Your task to perform on an android device: add a contact Image 0: 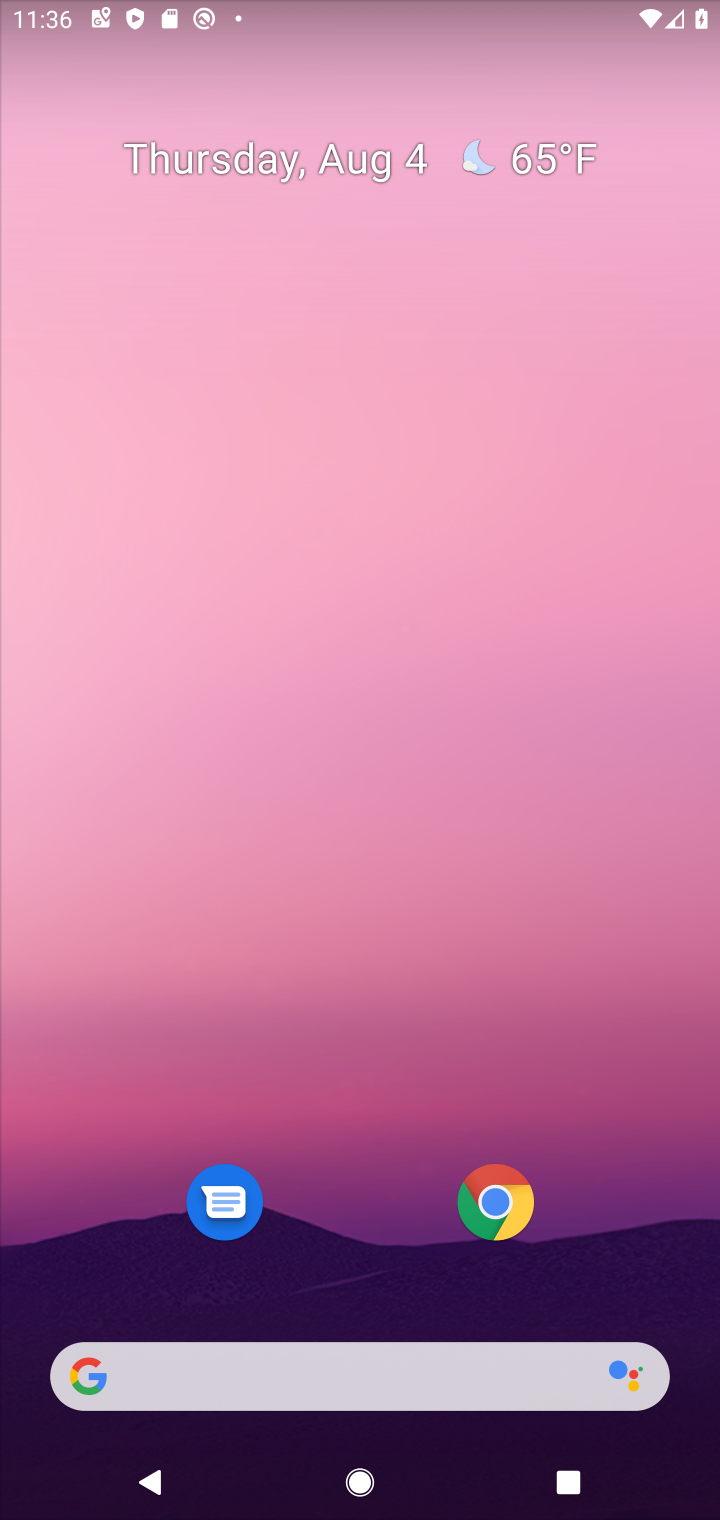
Step 0: drag from (371, 1160) to (522, 53)
Your task to perform on an android device: add a contact Image 1: 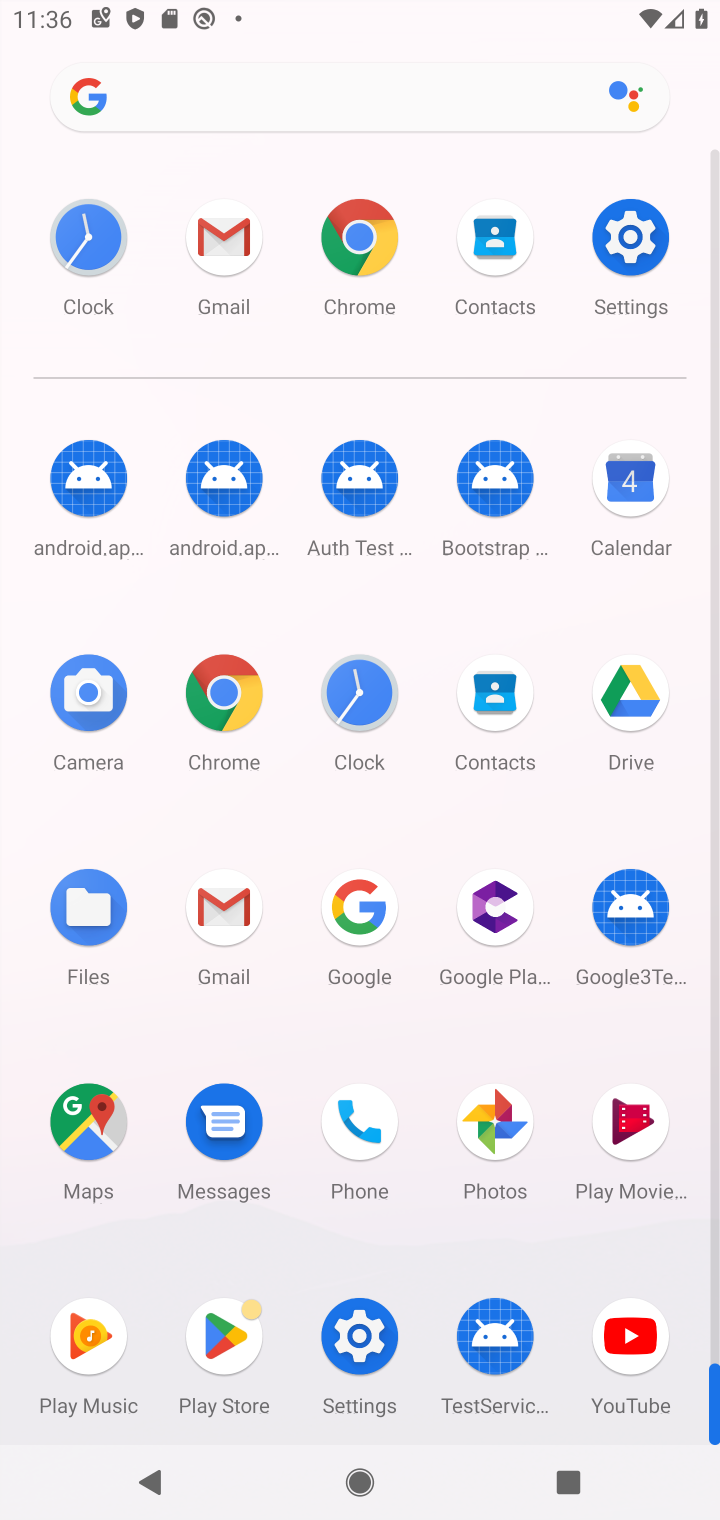
Step 1: click (482, 707)
Your task to perform on an android device: add a contact Image 2: 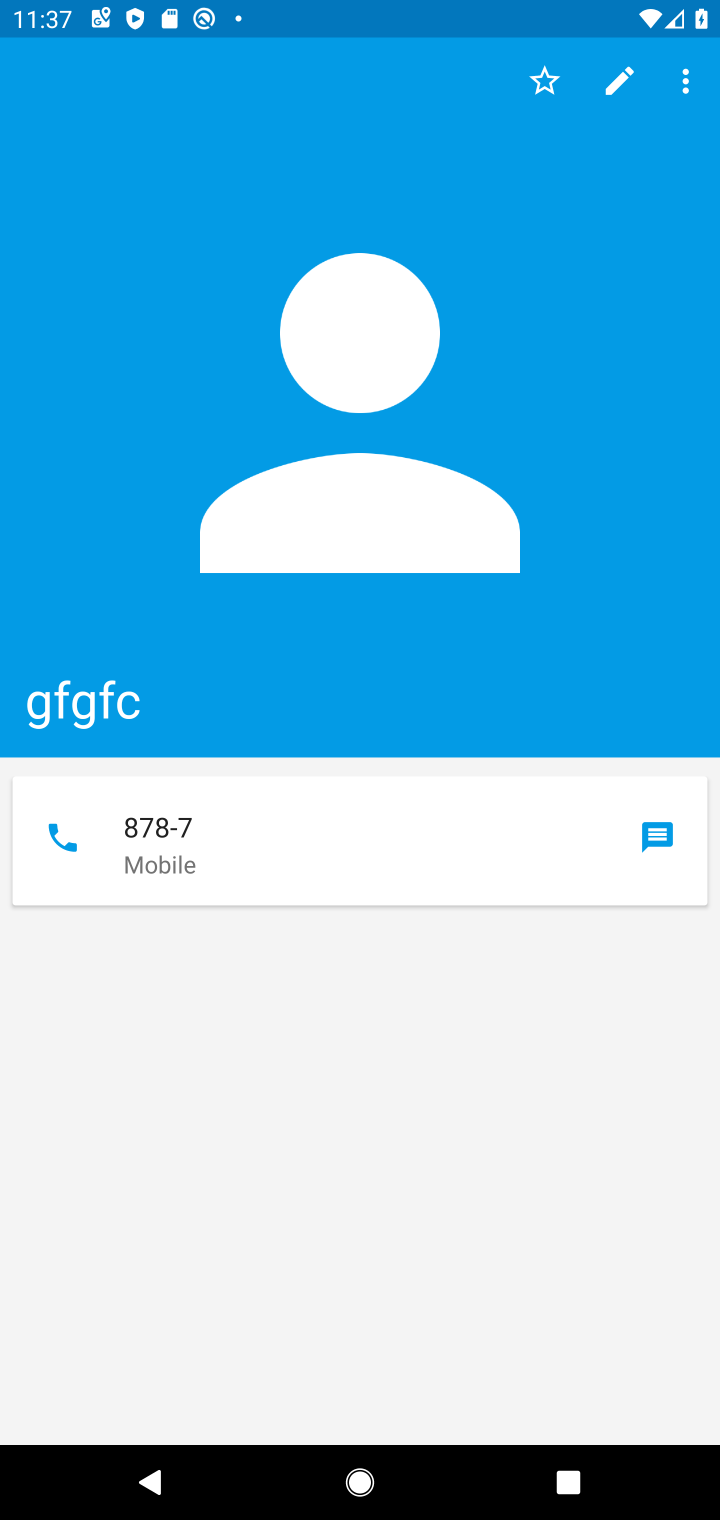
Step 2: press back button
Your task to perform on an android device: add a contact Image 3: 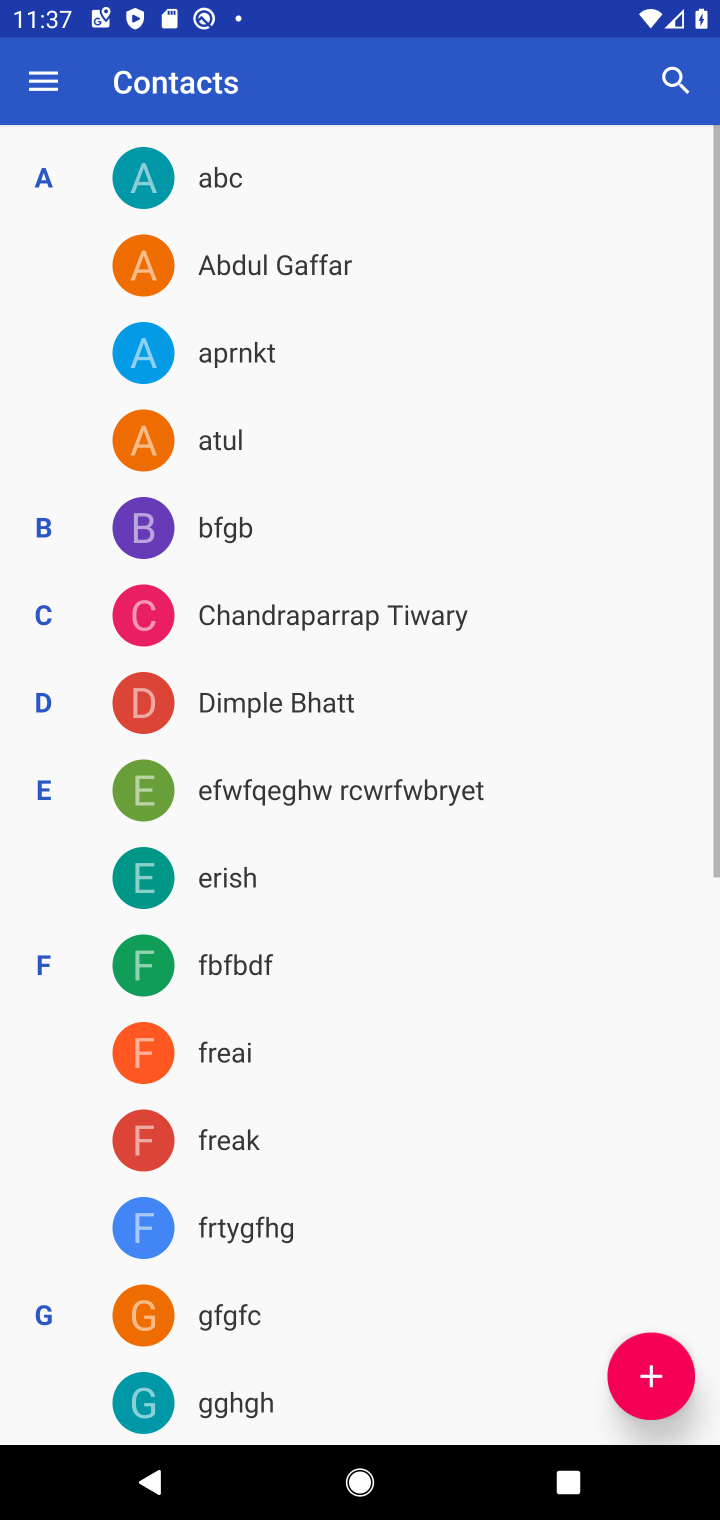
Step 3: click (649, 1355)
Your task to perform on an android device: add a contact Image 4: 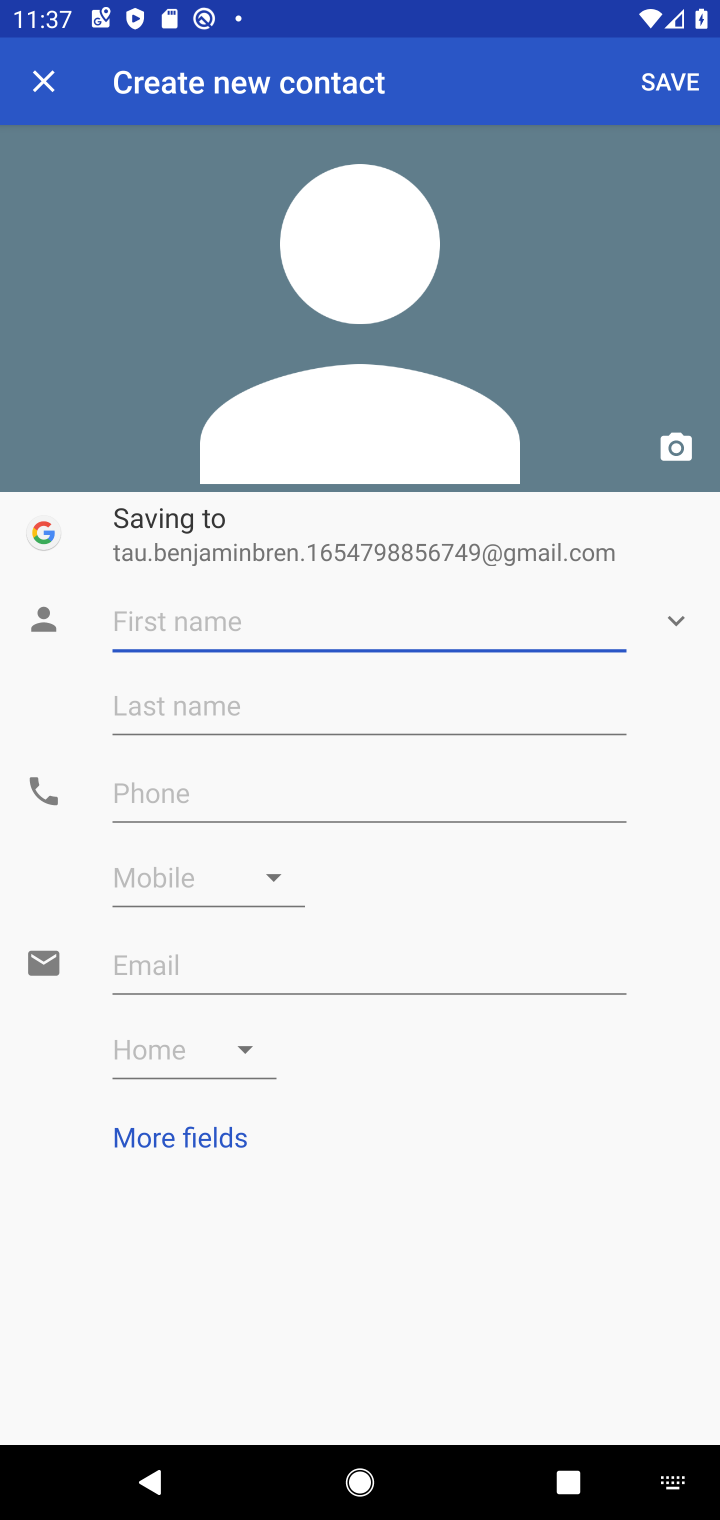
Step 4: click (218, 636)
Your task to perform on an android device: add a contact Image 5: 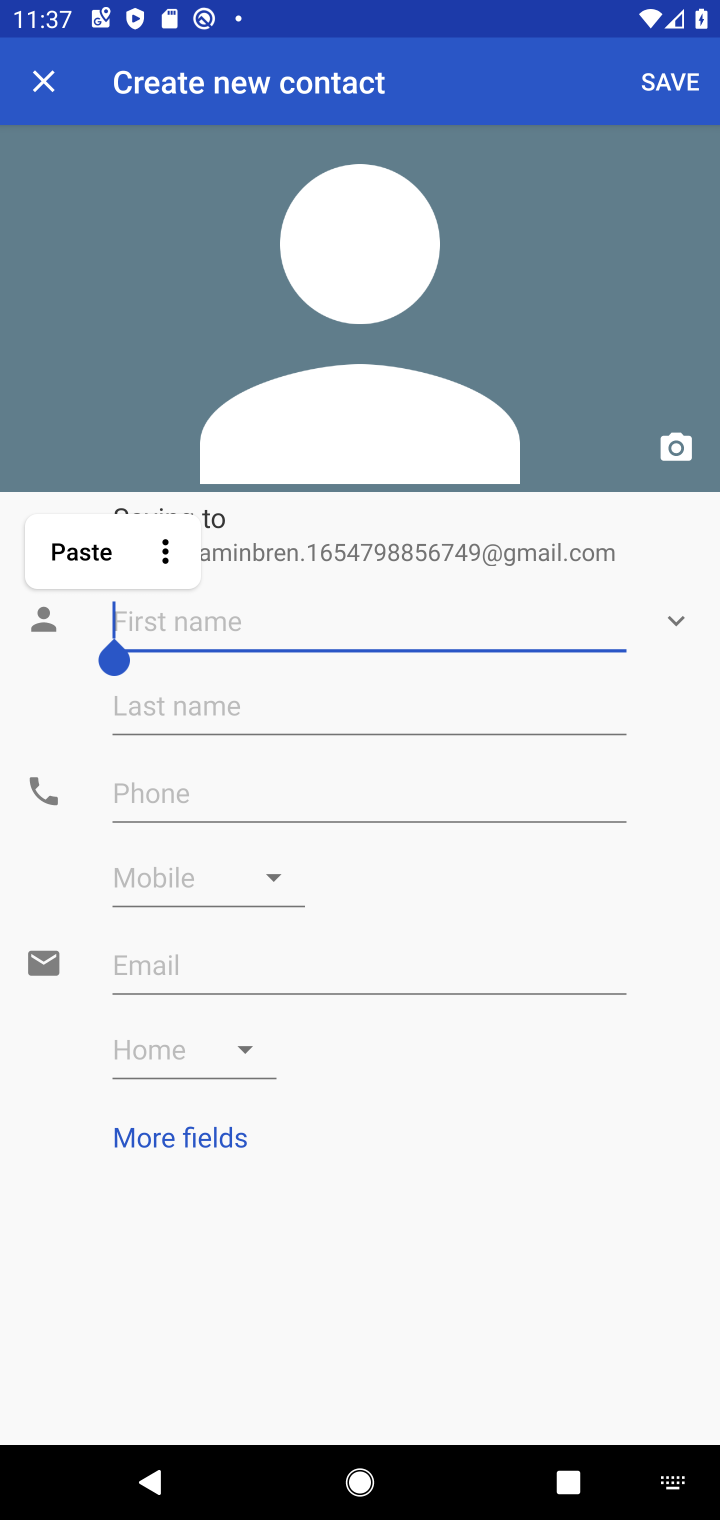
Step 5: type "gvgv"
Your task to perform on an android device: add a contact Image 6: 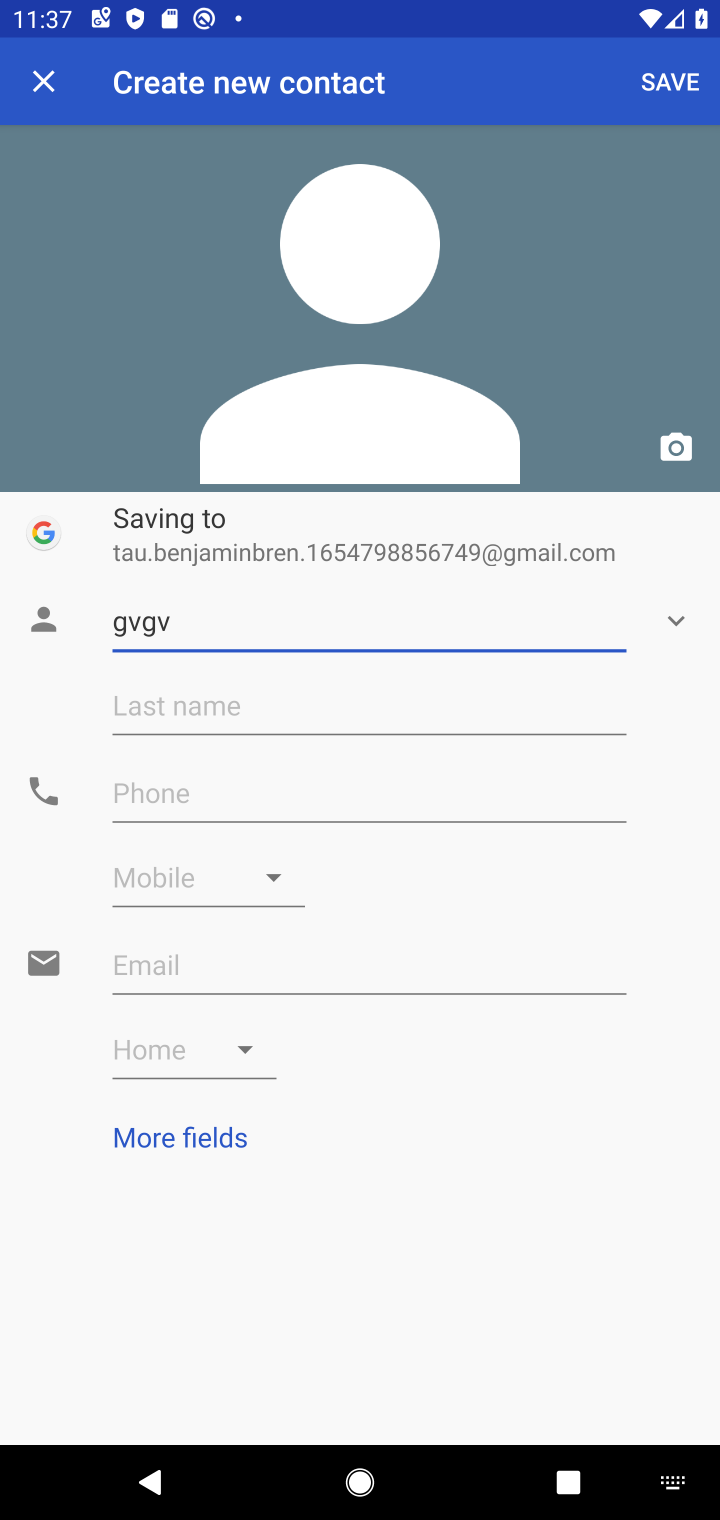
Step 6: click (184, 778)
Your task to perform on an android device: add a contact Image 7: 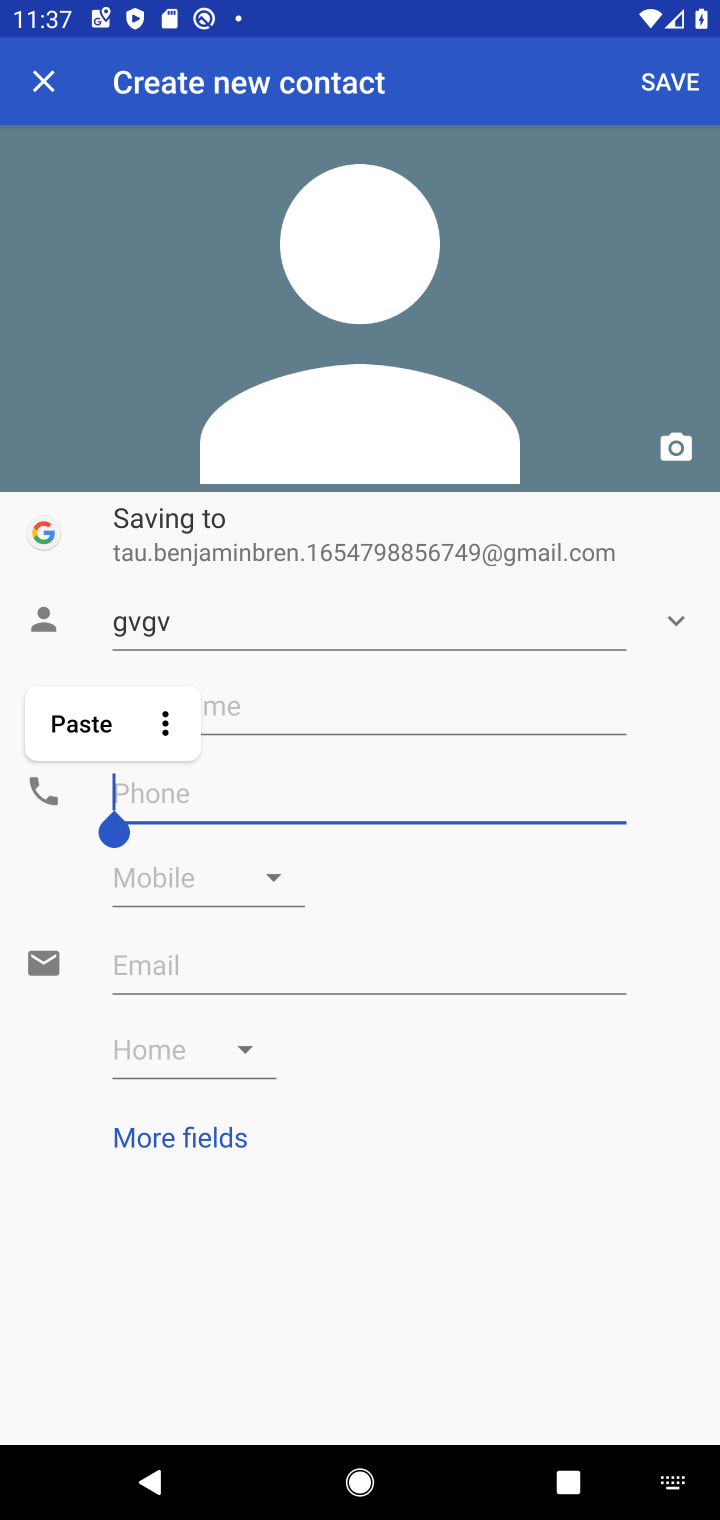
Step 7: type "76768"
Your task to perform on an android device: add a contact Image 8: 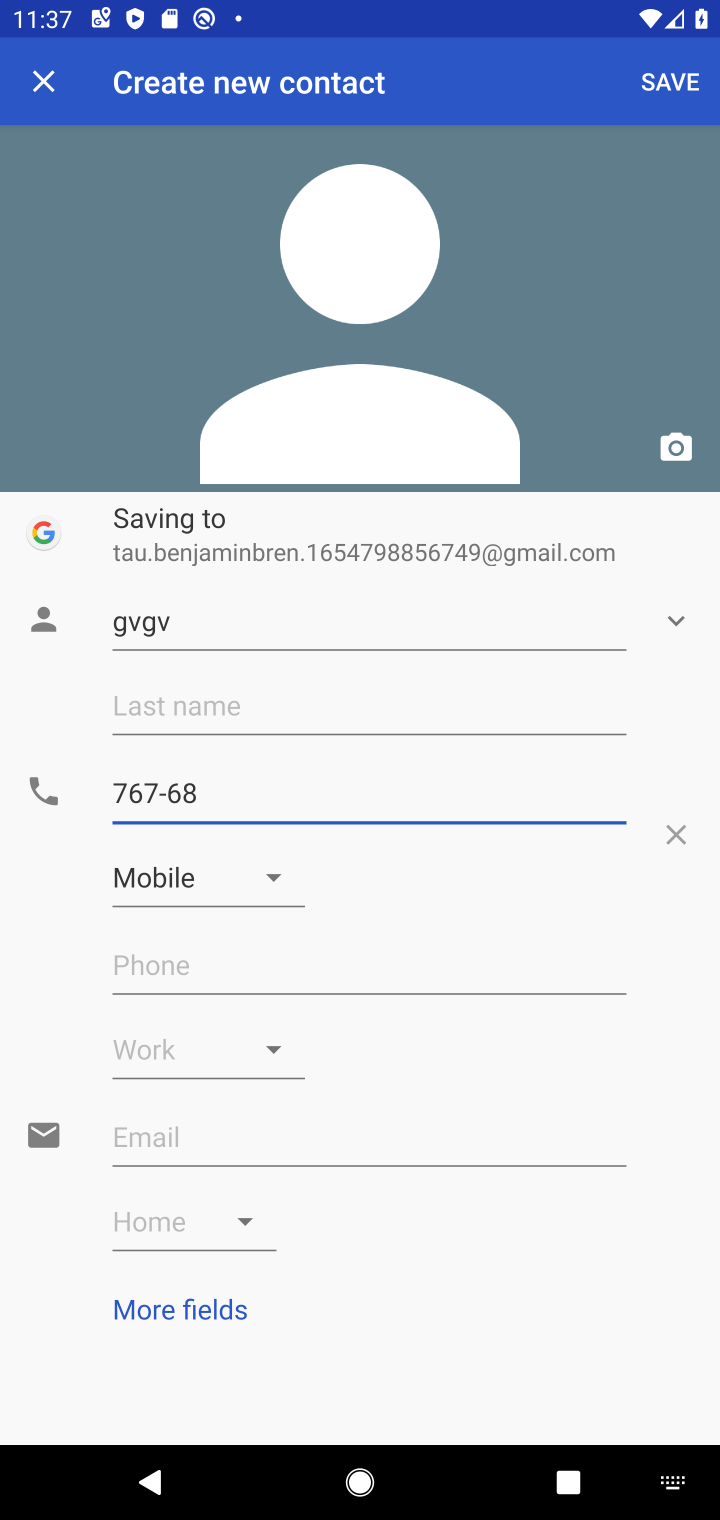
Step 8: click (681, 83)
Your task to perform on an android device: add a contact Image 9: 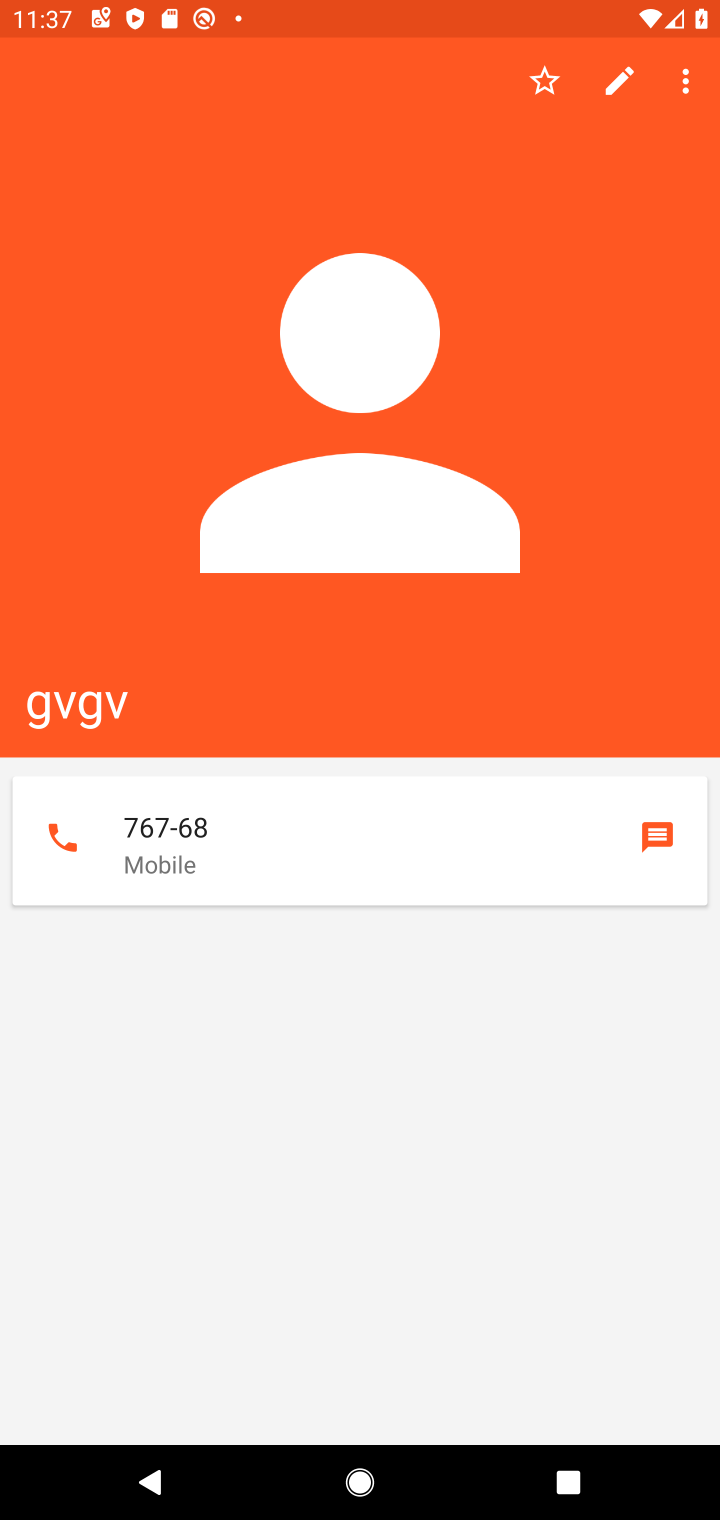
Step 9: task complete